Your task to perform on an android device: Go to Android settings Image 0: 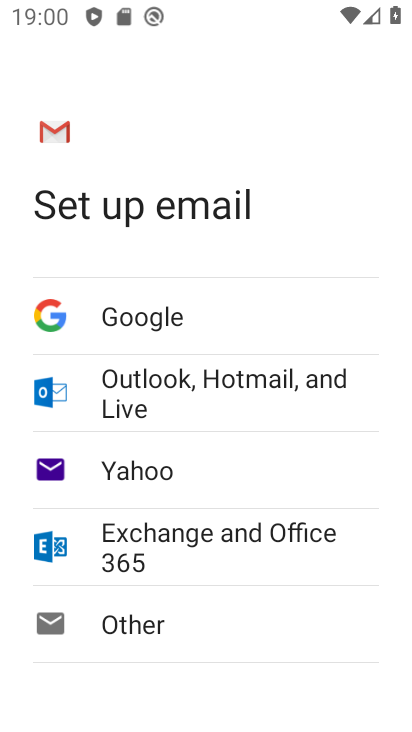
Step 0: press home button
Your task to perform on an android device: Go to Android settings Image 1: 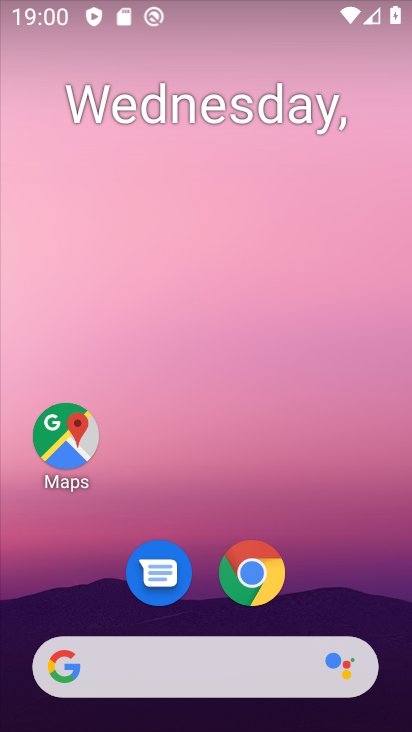
Step 1: drag from (364, 612) to (350, 106)
Your task to perform on an android device: Go to Android settings Image 2: 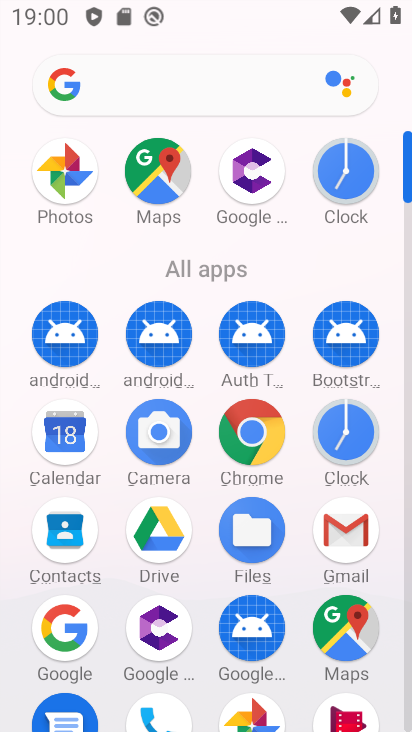
Step 2: drag from (326, 277) to (324, 12)
Your task to perform on an android device: Go to Android settings Image 3: 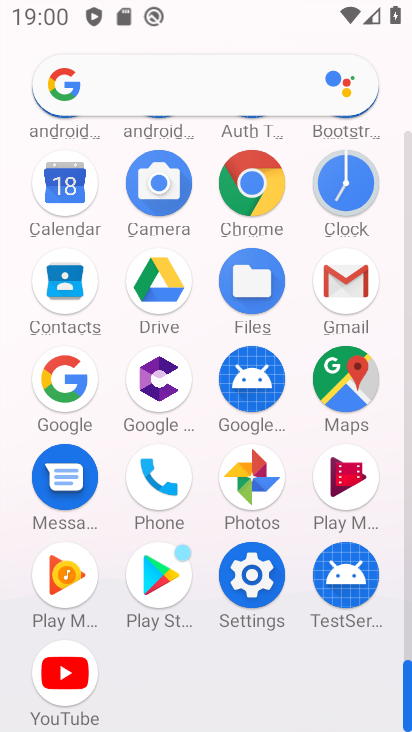
Step 3: click (259, 611)
Your task to perform on an android device: Go to Android settings Image 4: 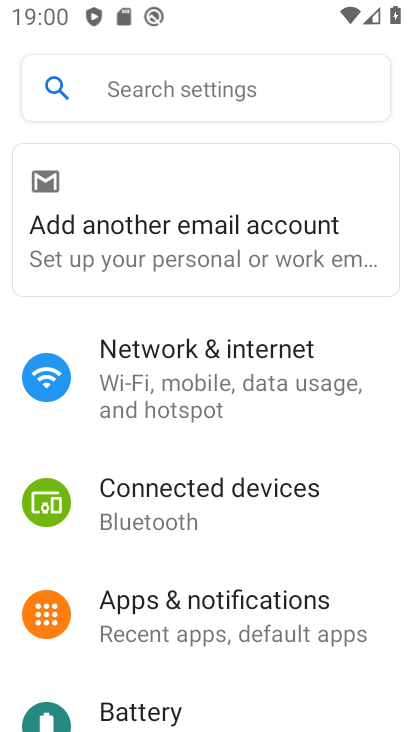
Step 4: task complete